Your task to perform on an android device: open device folders in google photos Image 0: 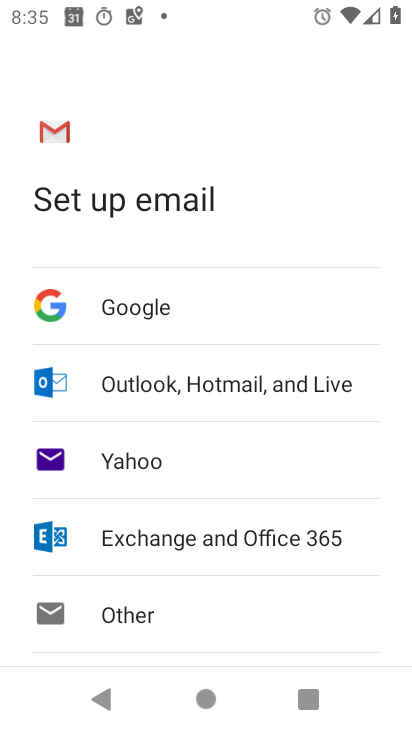
Step 0: press home button
Your task to perform on an android device: open device folders in google photos Image 1: 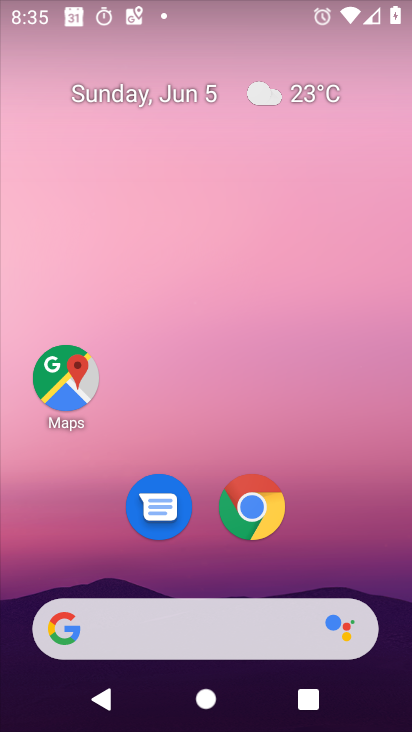
Step 1: drag from (257, 655) to (168, 8)
Your task to perform on an android device: open device folders in google photos Image 2: 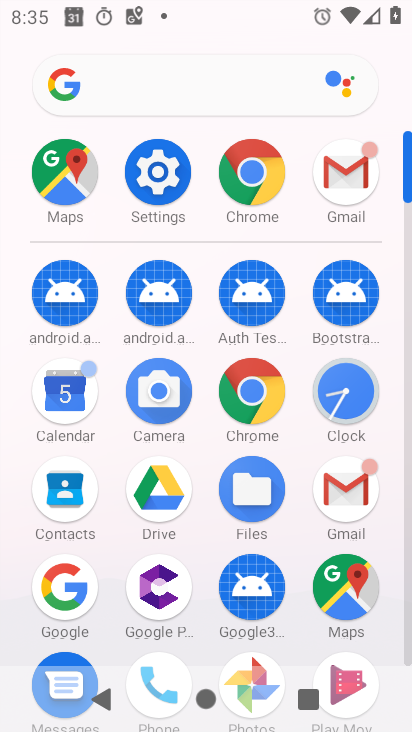
Step 2: click (262, 655)
Your task to perform on an android device: open device folders in google photos Image 3: 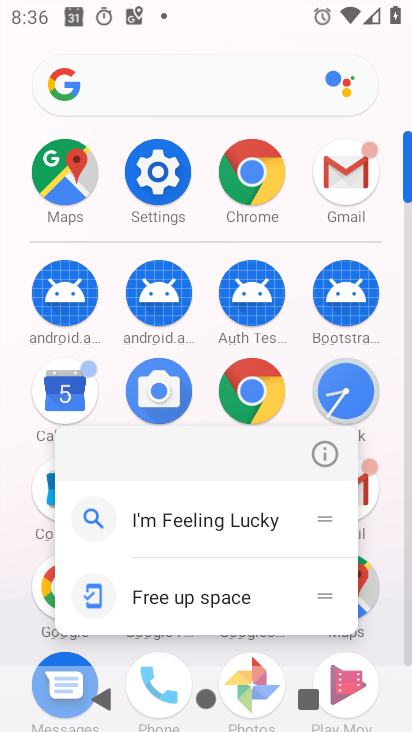
Step 3: click (257, 665)
Your task to perform on an android device: open device folders in google photos Image 4: 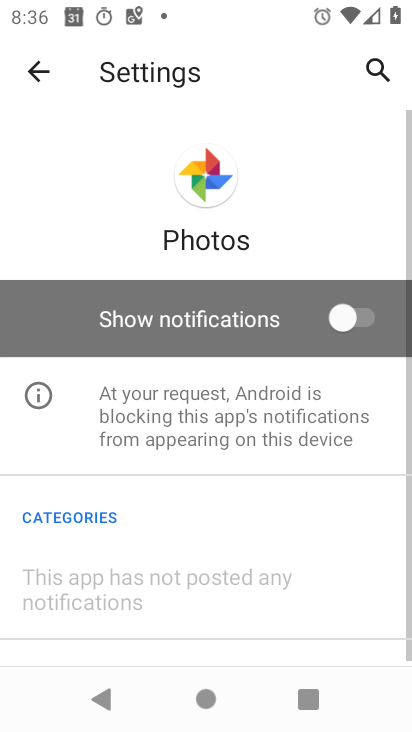
Step 4: click (33, 71)
Your task to perform on an android device: open device folders in google photos Image 5: 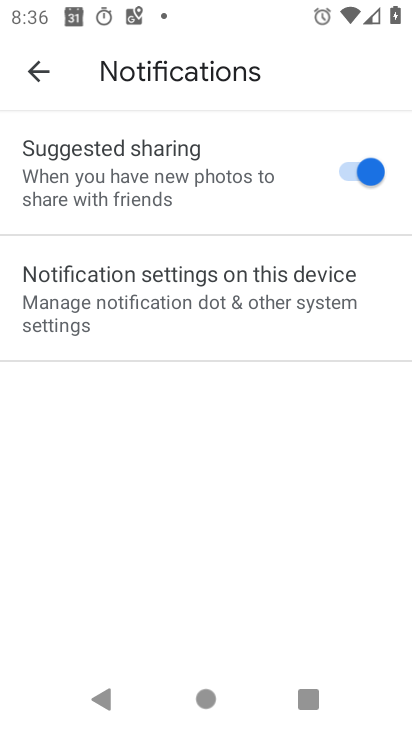
Step 5: click (33, 71)
Your task to perform on an android device: open device folders in google photos Image 6: 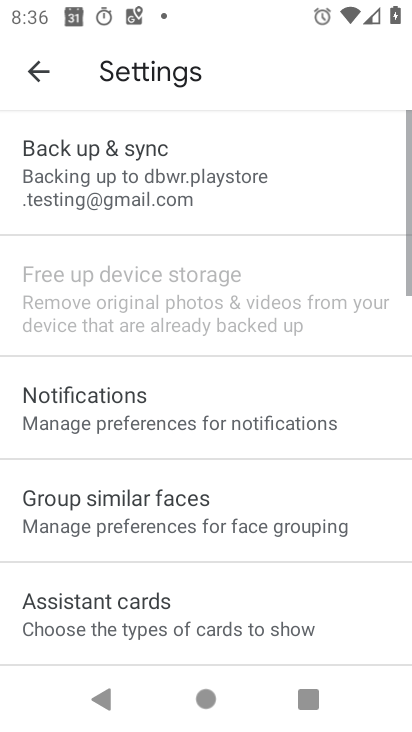
Step 6: click (31, 72)
Your task to perform on an android device: open device folders in google photos Image 7: 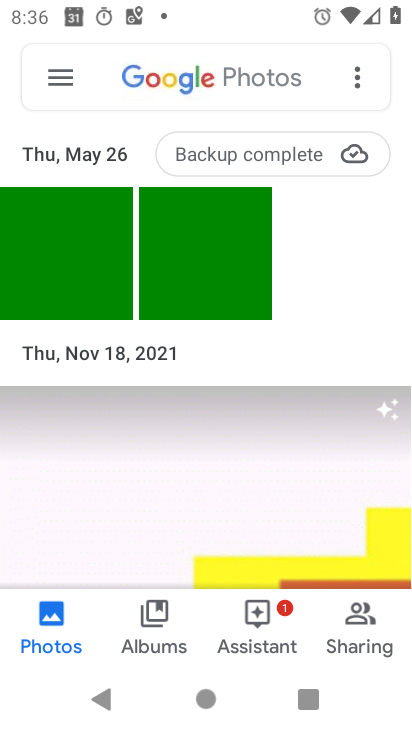
Step 7: click (31, 72)
Your task to perform on an android device: open device folders in google photos Image 8: 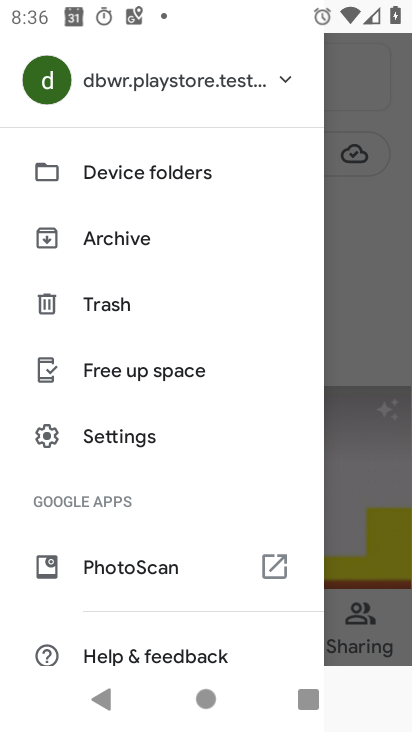
Step 8: click (112, 183)
Your task to perform on an android device: open device folders in google photos Image 9: 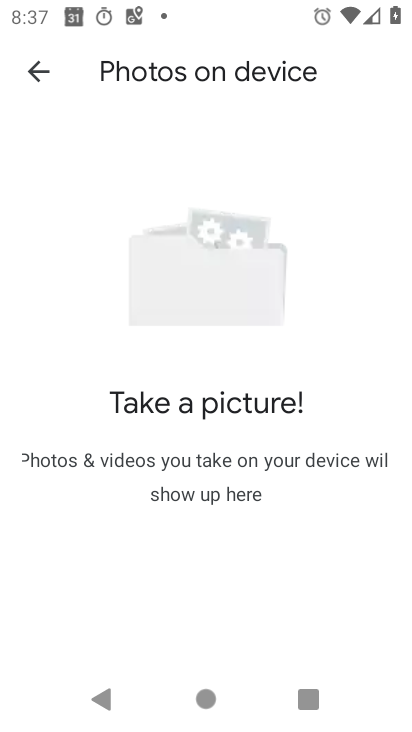
Step 9: task complete